Your task to perform on an android device: Open the Play Movies app and select the watchlist tab. Image 0: 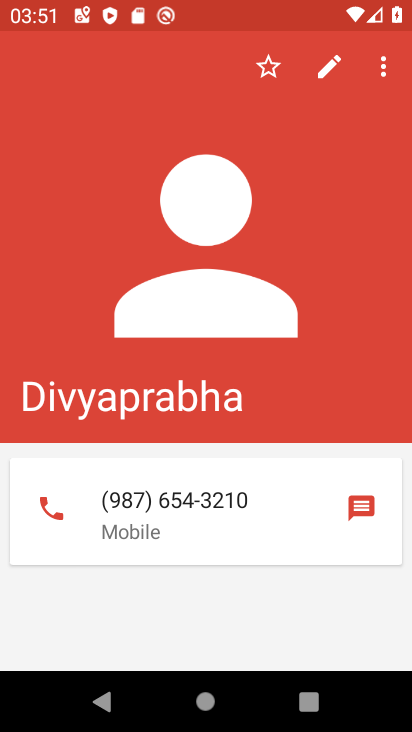
Step 0: press home button
Your task to perform on an android device: Open the Play Movies app and select the watchlist tab. Image 1: 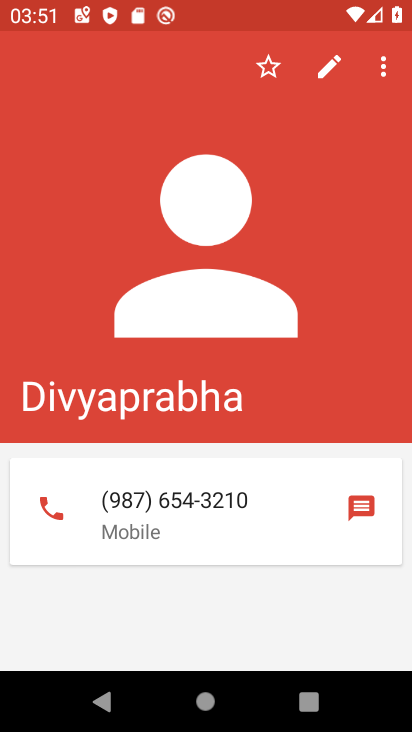
Step 1: press home button
Your task to perform on an android device: Open the Play Movies app and select the watchlist tab. Image 2: 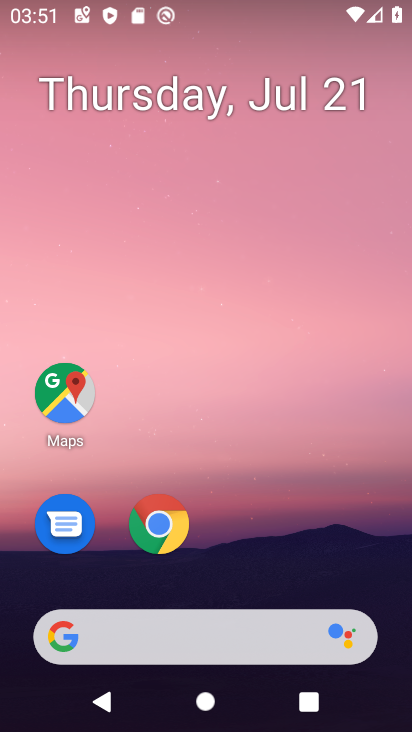
Step 2: drag from (253, 550) to (272, 18)
Your task to perform on an android device: Open the Play Movies app and select the watchlist tab. Image 3: 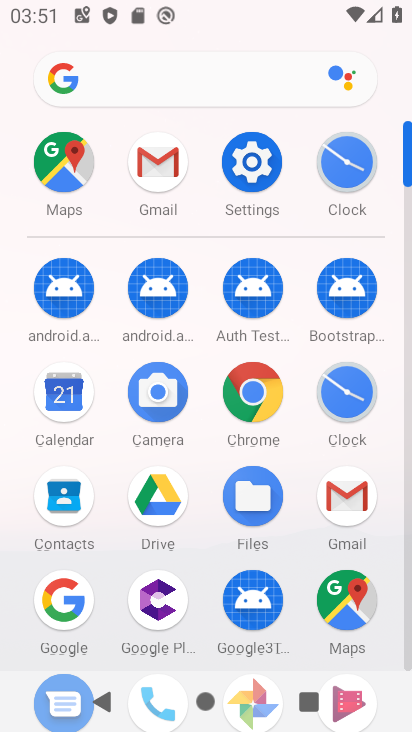
Step 3: drag from (305, 535) to (285, 360)
Your task to perform on an android device: Open the Play Movies app and select the watchlist tab. Image 4: 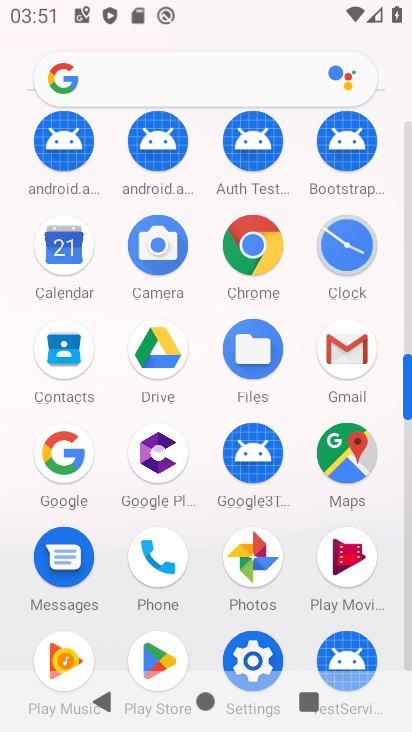
Step 4: click (344, 558)
Your task to perform on an android device: Open the Play Movies app and select the watchlist tab. Image 5: 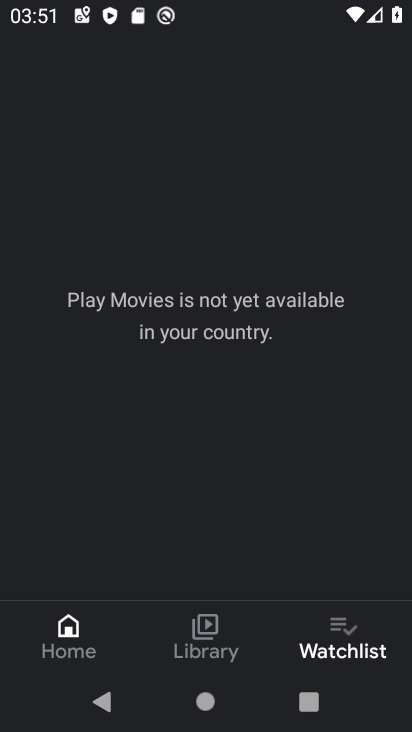
Step 5: click (347, 641)
Your task to perform on an android device: Open the Play Movies app and select the watchlist tab. Image 6: 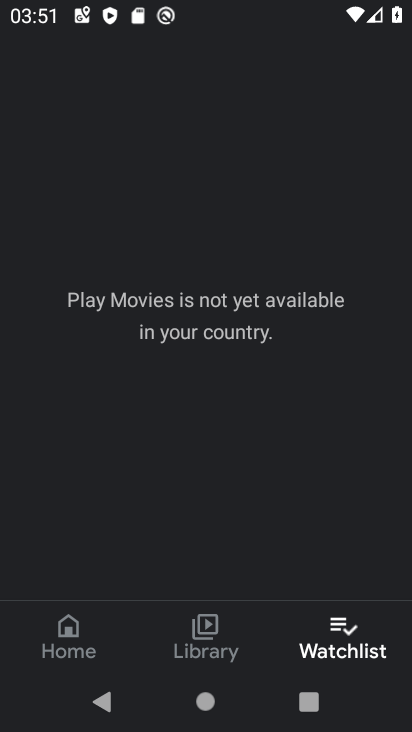
Step 6: task complete